Your task to perform on an android device: Is it going to rain today? Image 0: 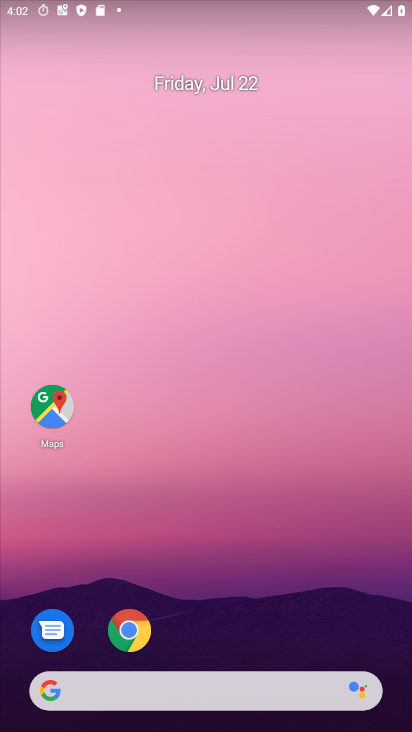
Step 0: drag from (293, 693) to (228, 63)
Your task to perform on an android device: Is it going to rain today? Image 1: 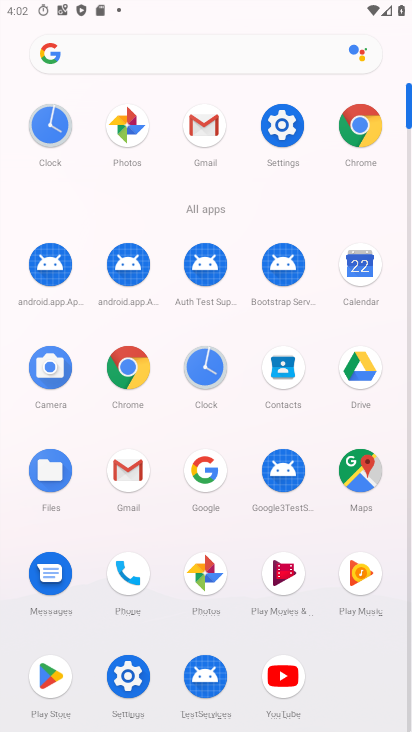
Step 1: click (128, 377)
Your task to perform on an android device: Is it going to rain today? Image 2: 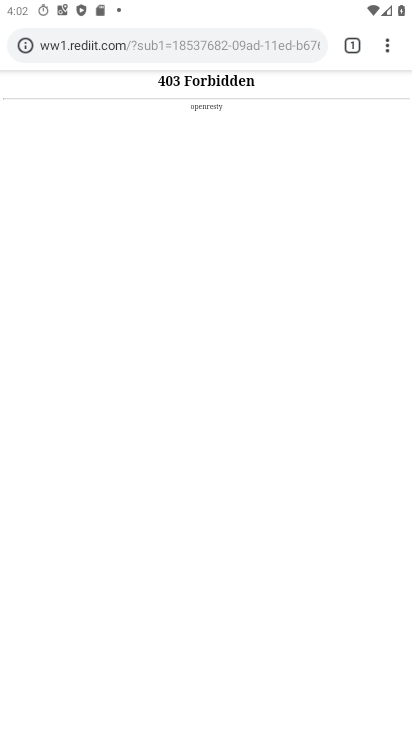
Step 2: click (226, 53)
Your task to perform on an android device: Is it going to rain today? Image 3: 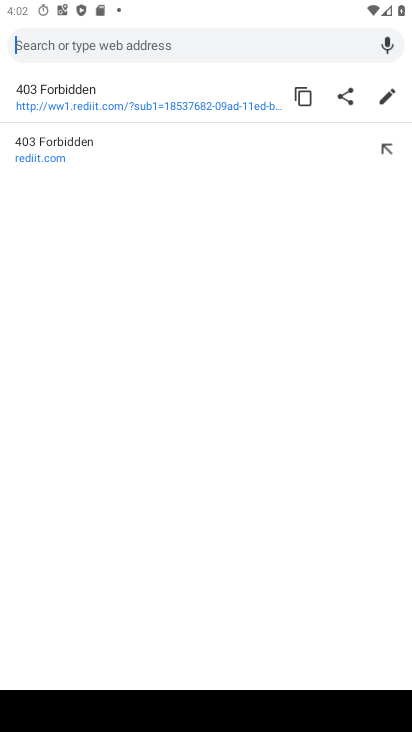
Step 3: type "going to rain today"
Your task to perform on an android device: Is it going to rain today? Image 4: 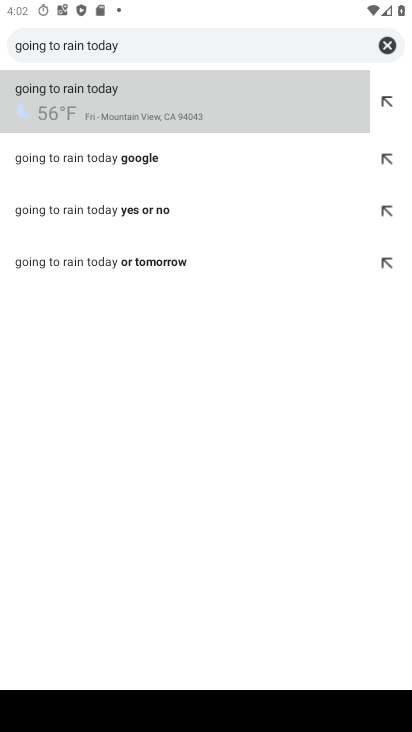
Step 4: click (156, 104)
Your task to perform on an android device: Is it going to rain today? Image 5: 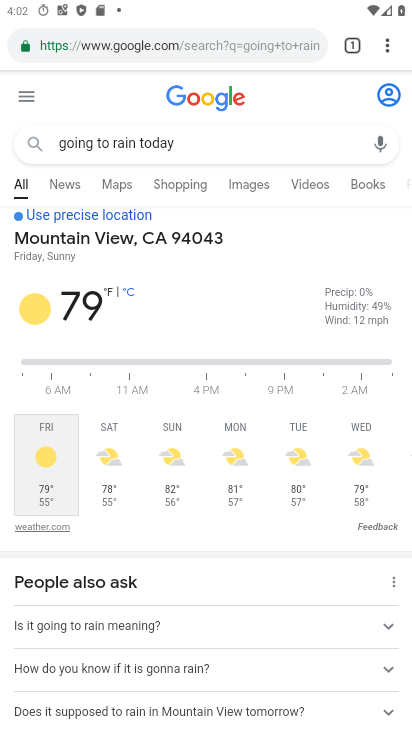
Step 5: task complete